Your task to perform on an android device: Open Reddit Image 0: 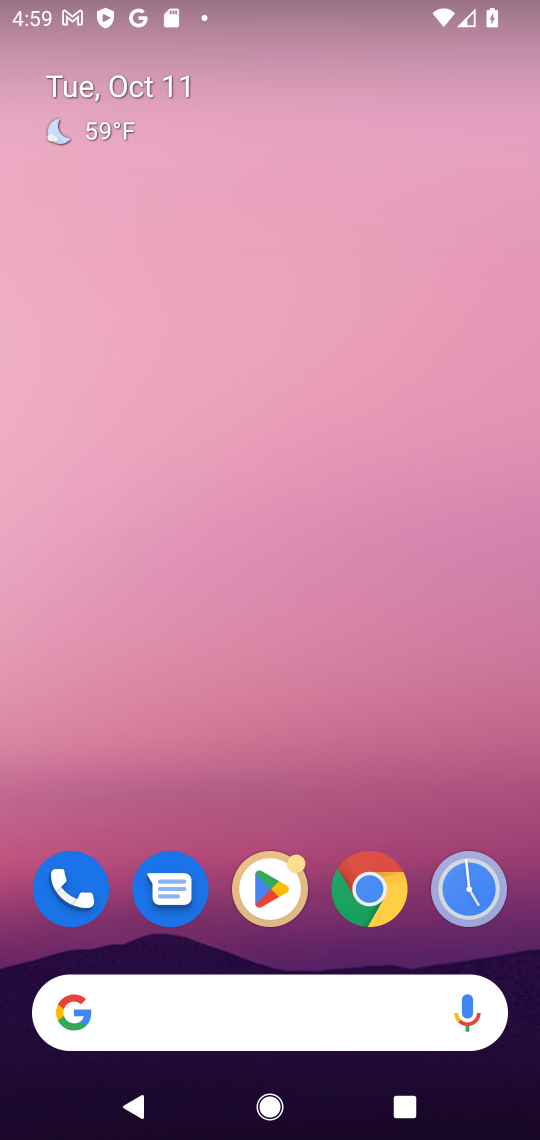
Step 0: drag from (230, 695) to (232, 359)
Your task to perform on an android device: Open Reddit Image 1: 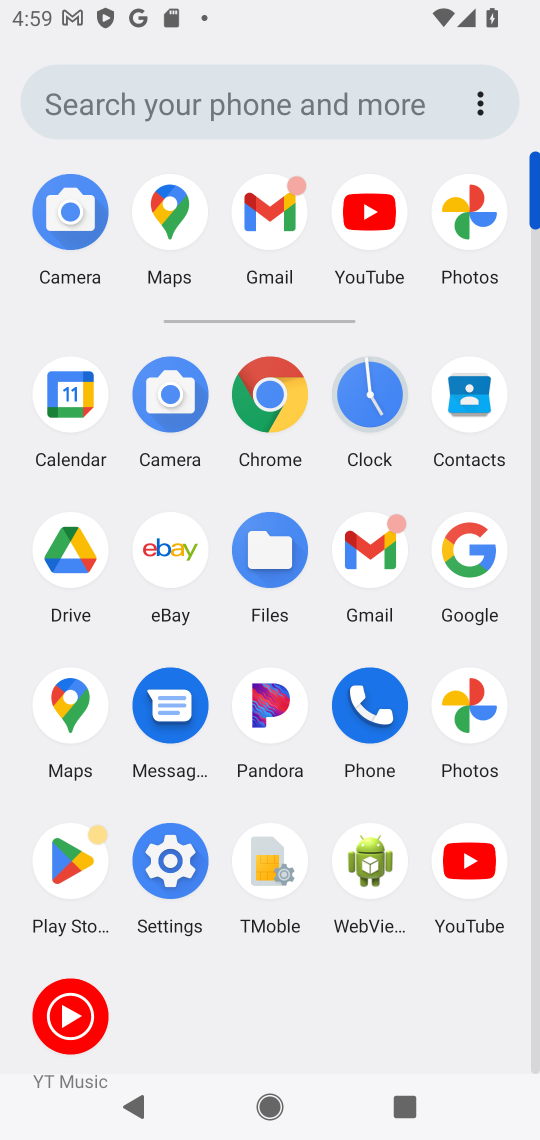
Step 1: click (456, 523)
Your task to perform on an android device: Open Reddit Image 2: 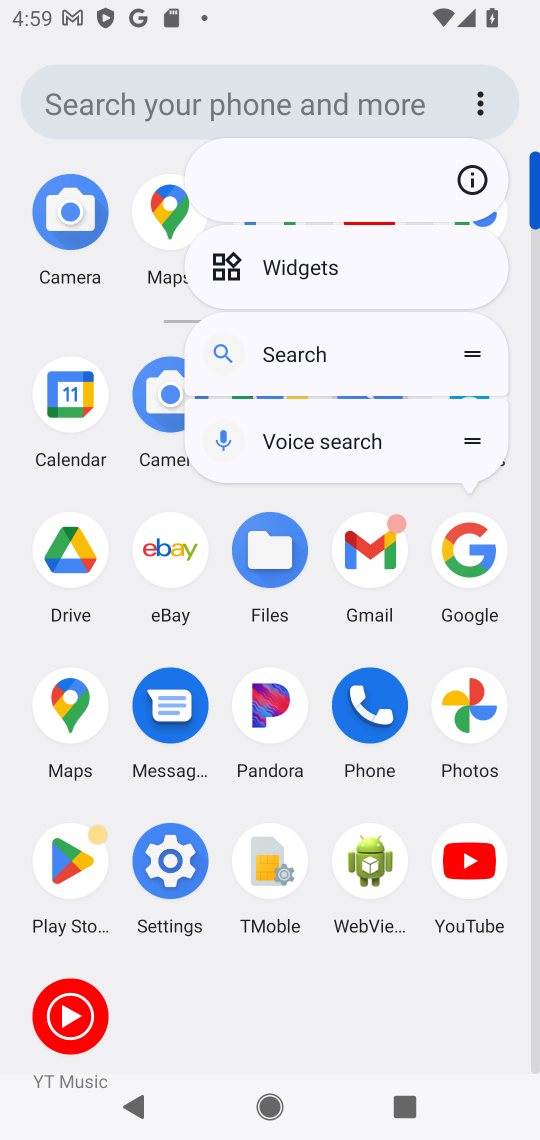
Step 2: click (466, 536)
Your task to perform on an android device: Open Reddit Image 3: 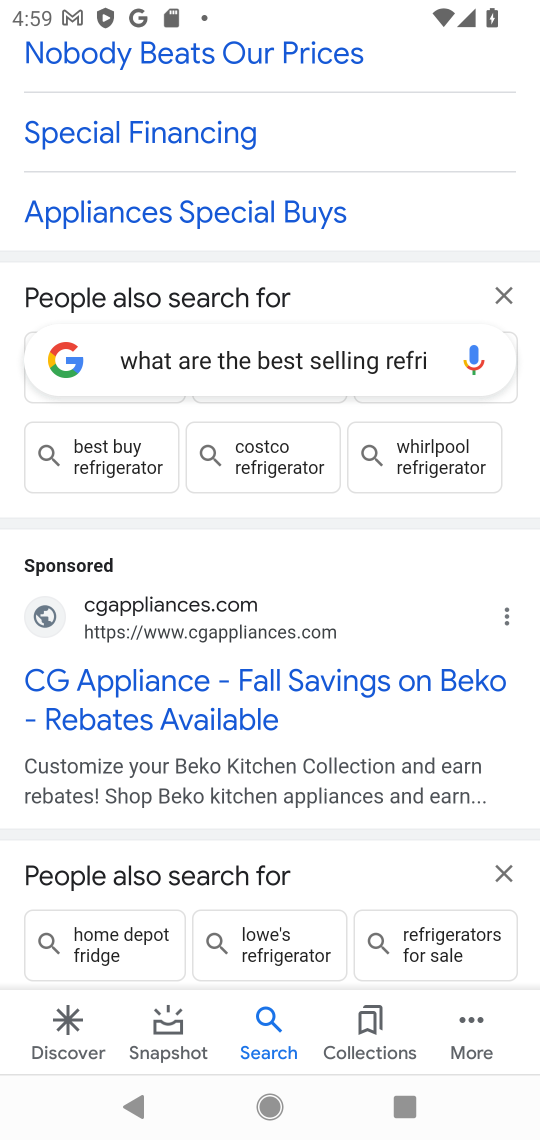
Step 3: drag from (240, 134) to (247, 839)
Your task to perform on an android device: Open Reddit Image 4: 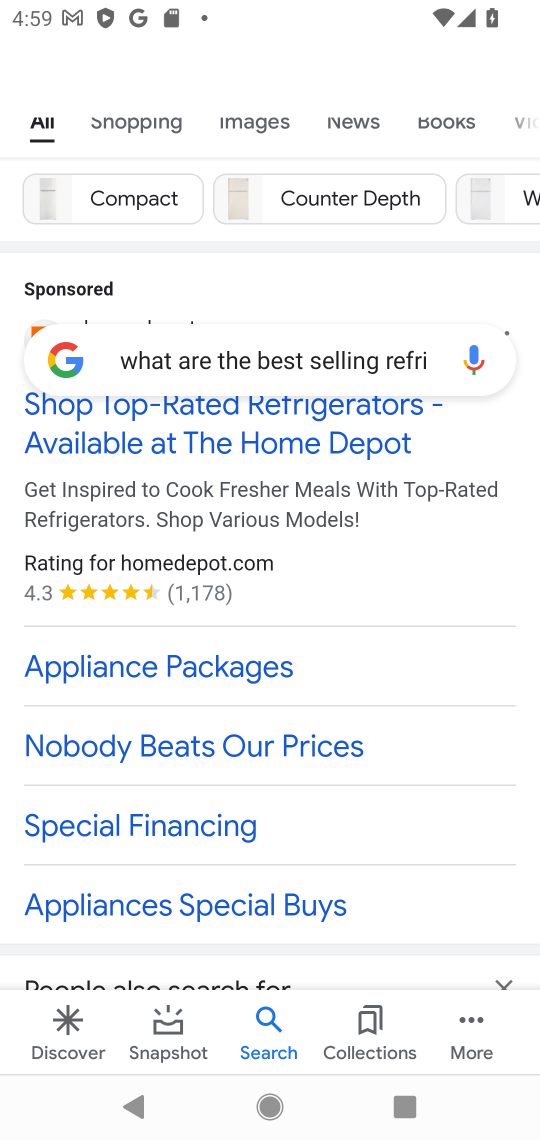
Step 4: drag from (212, 185) to (201, 782)
Your task to perform on an android device: Open Reddit Image 5: 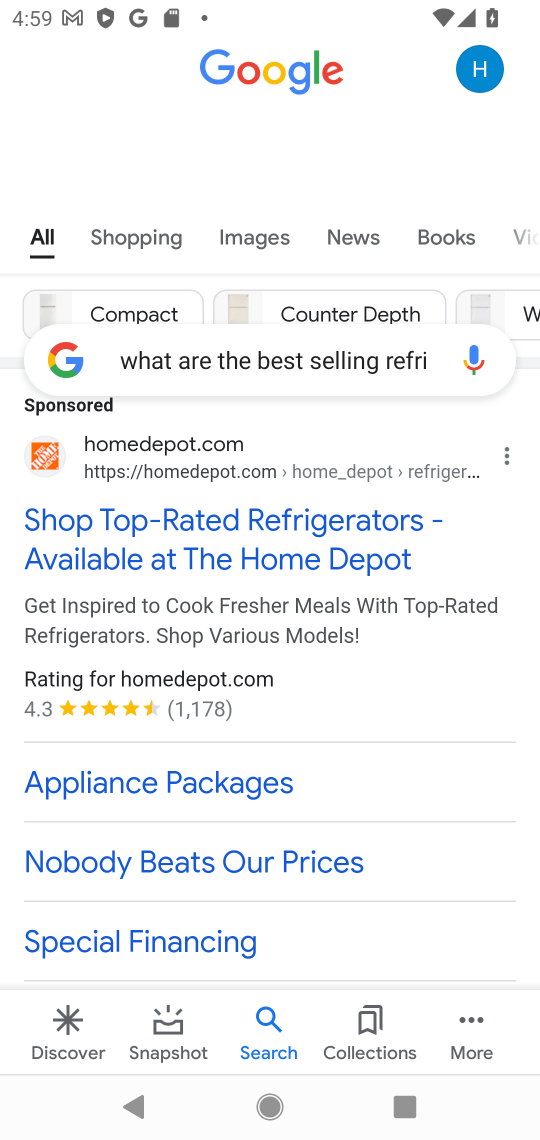
Step 5: click (274, 343)
Your task to perform on an android device: Open Reddit Image 6: 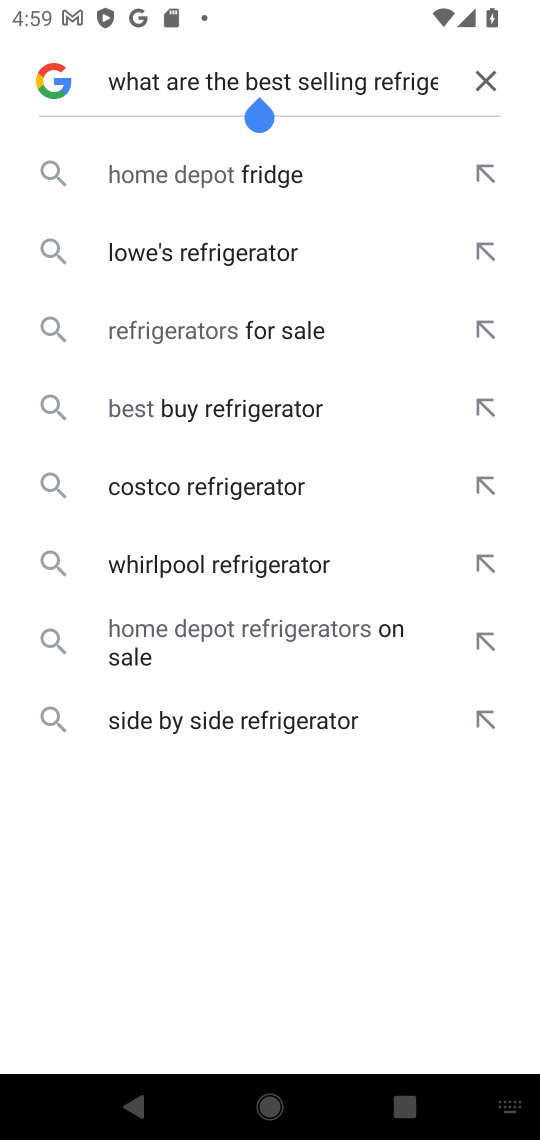
Step 6: click (485, 79)
Your task to perform on an android device: Open Reddit Image 7: 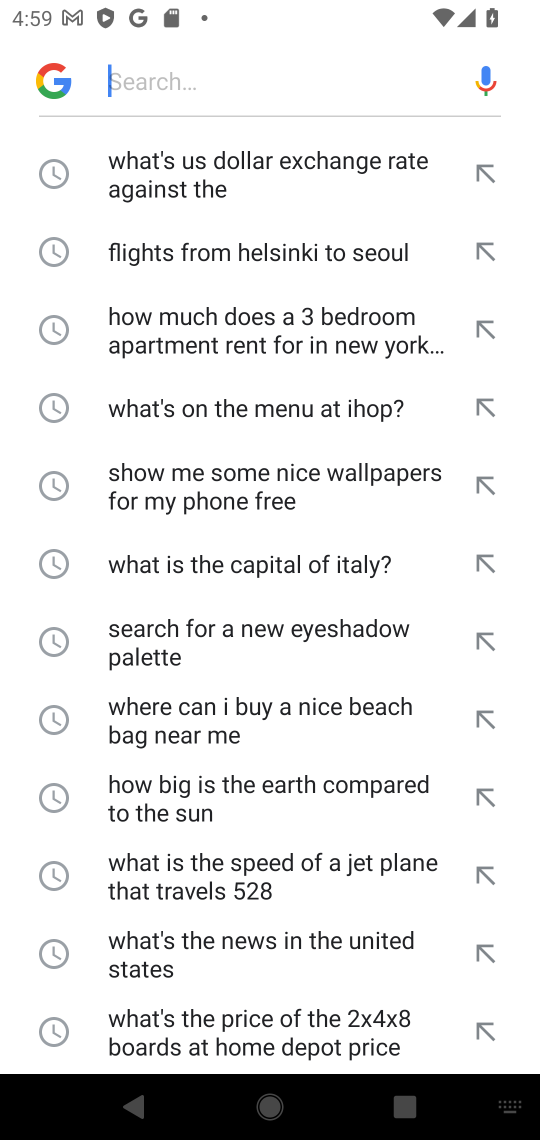
Step 7: click (197, 26)
Your task to perform on an android device: Open Reddit Image 8: 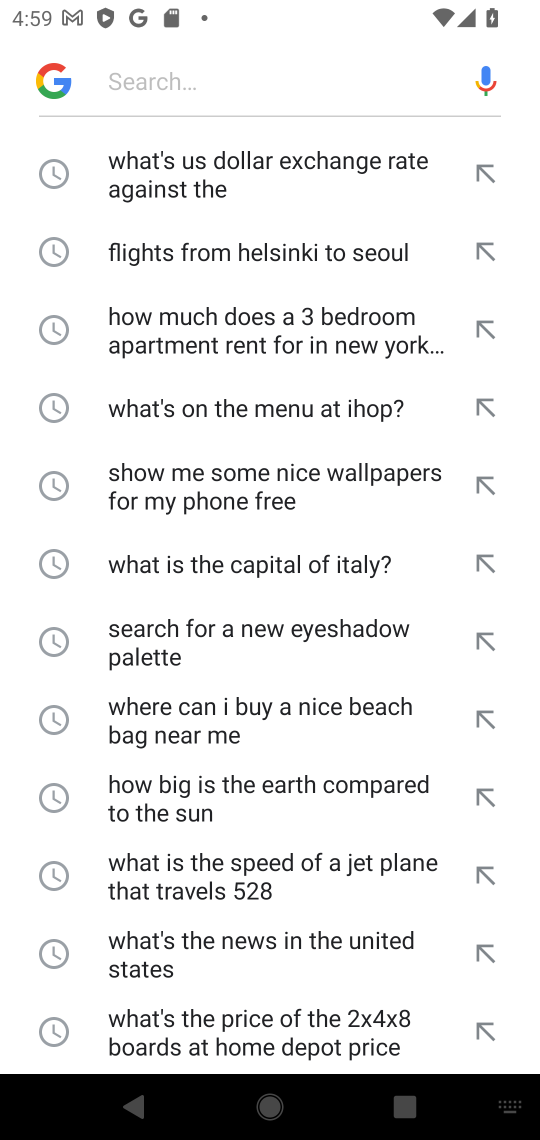
Step 8: click (187, 86)
Your task to perform on an android device: Open Reddit Image 9: 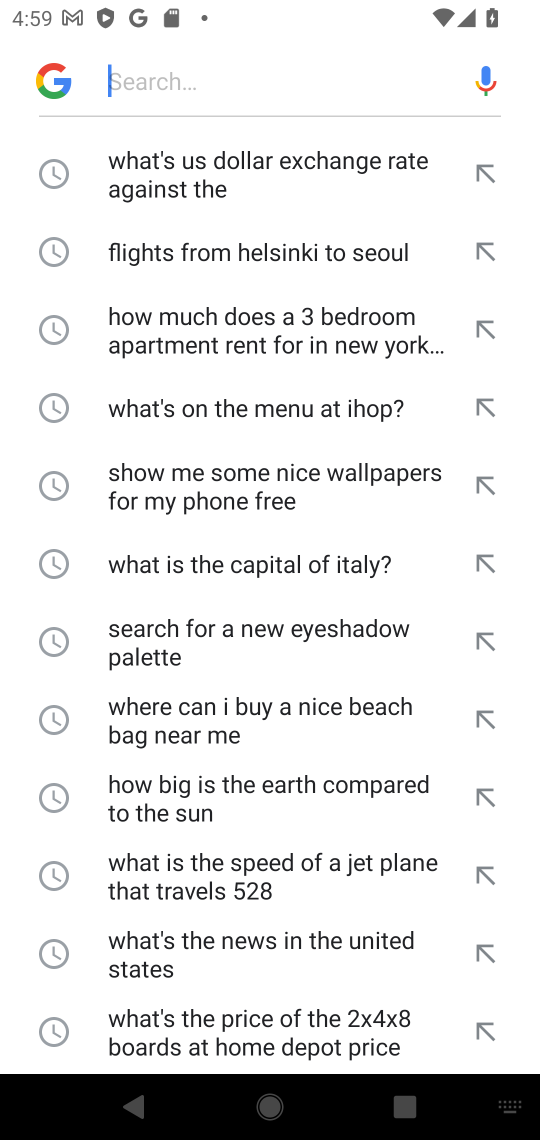
Step 9: type "Open Reddit "
Your task to perform on an android device: Open Reddit Image 10: 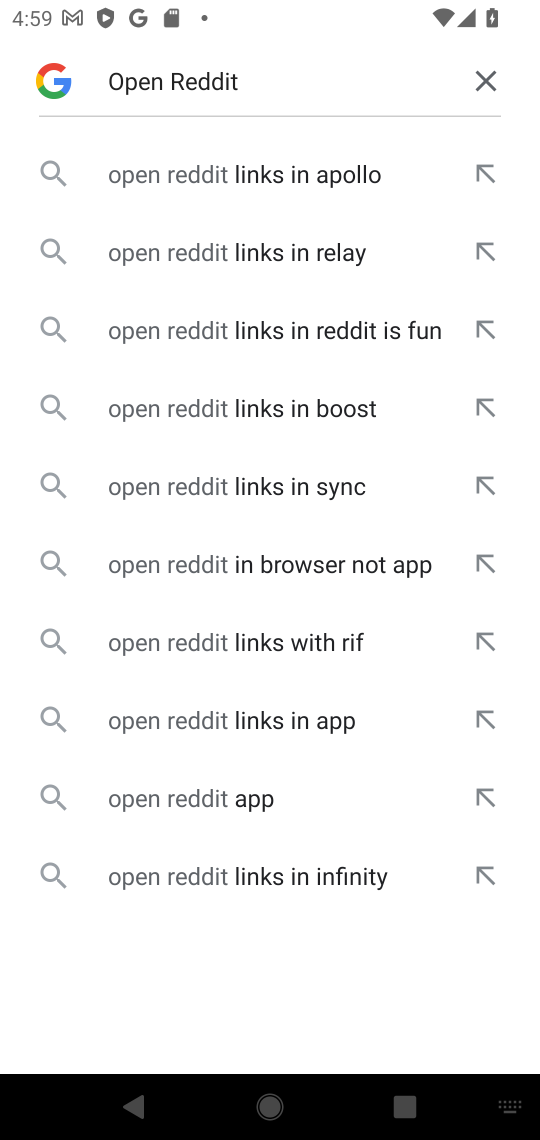
Step 10: click (265, 185)
Your task to perform on an android device: Open Reddit Image 11: 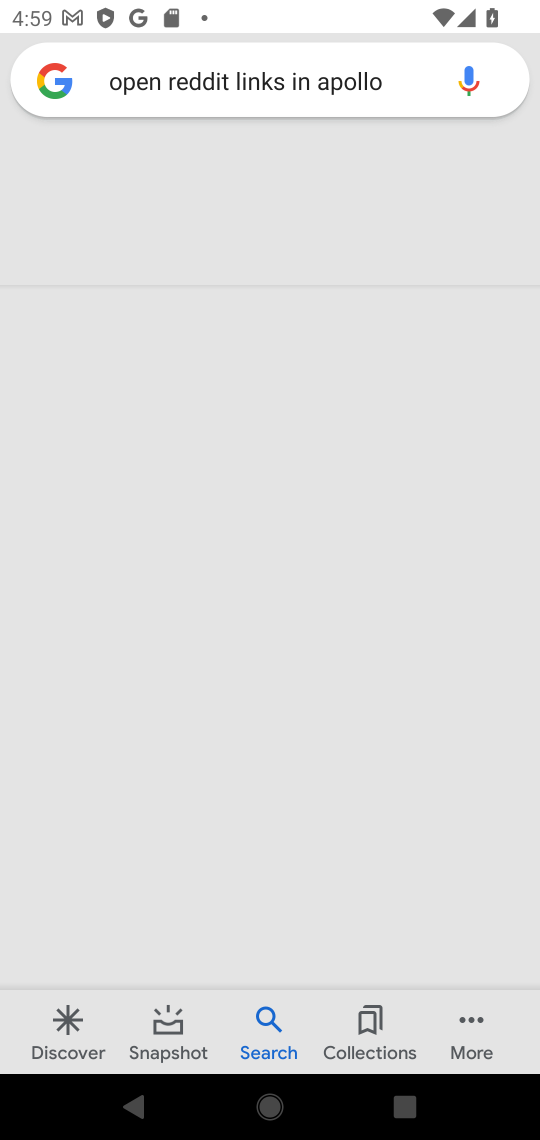
Step 11: click (215, 179)
Your task to perform on an android device: Open Reddit Image 12: 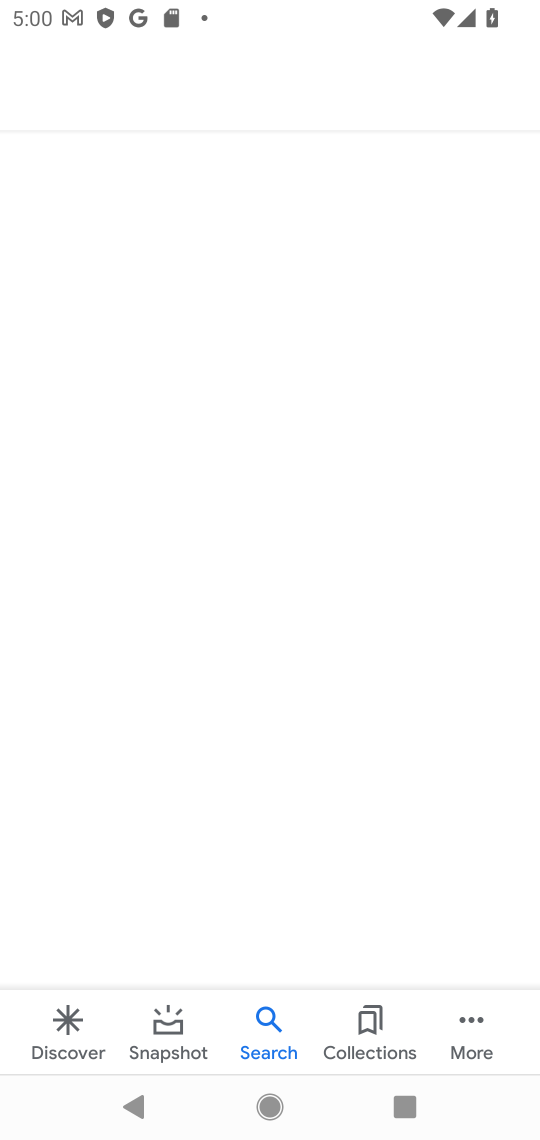
Step 12: click (240, 173)
Your task to perform on an android device: Open Reddit Image 13: 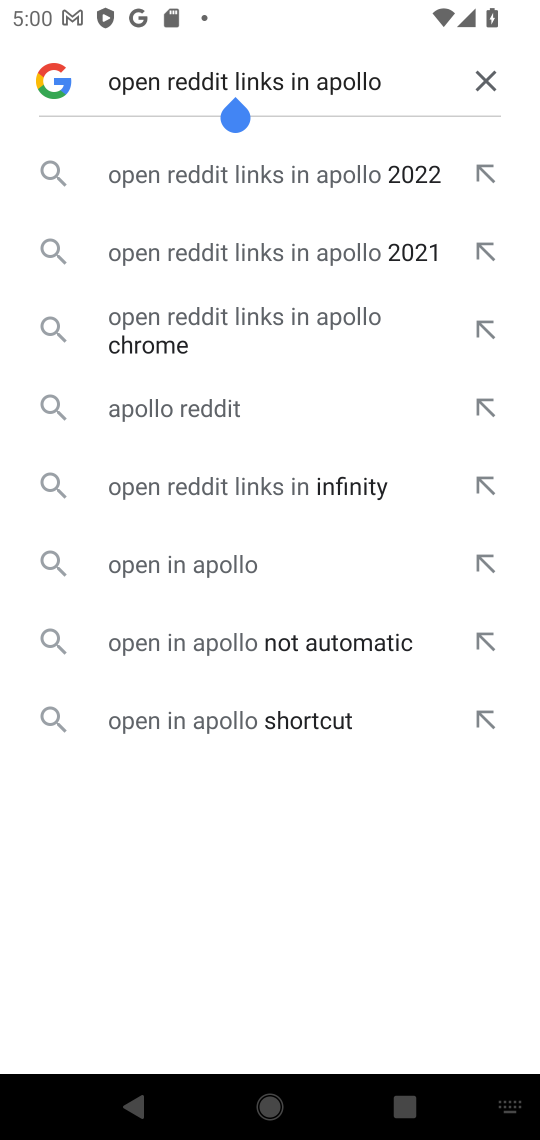
Step 13: click (306, 177)
Your task to perform on an android device: Open Reddit Image 14: 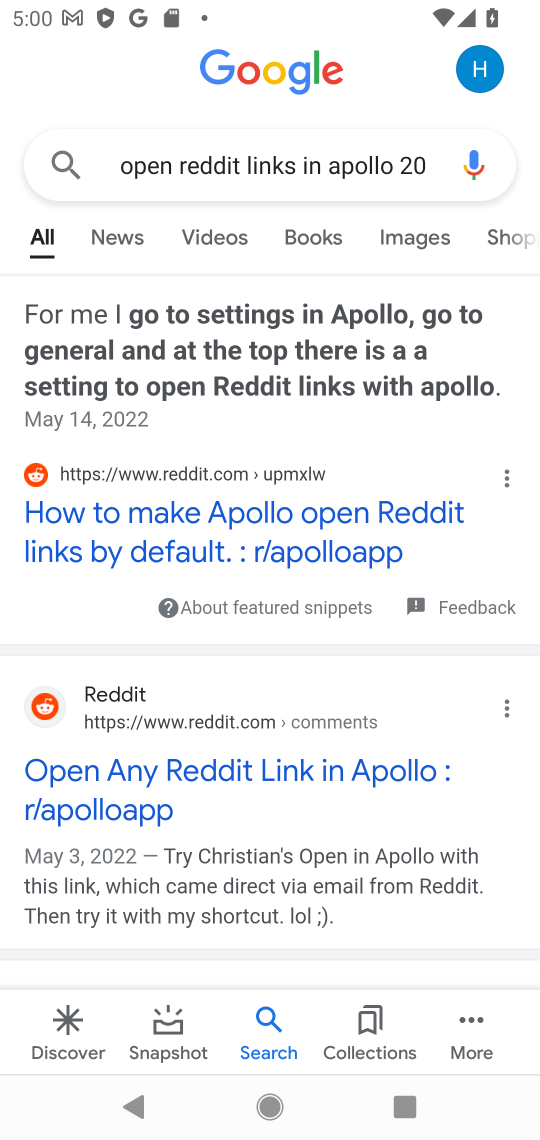
Step 14: click (113, 762)
Your task to perform on an android device: Open Reddit Image 15: 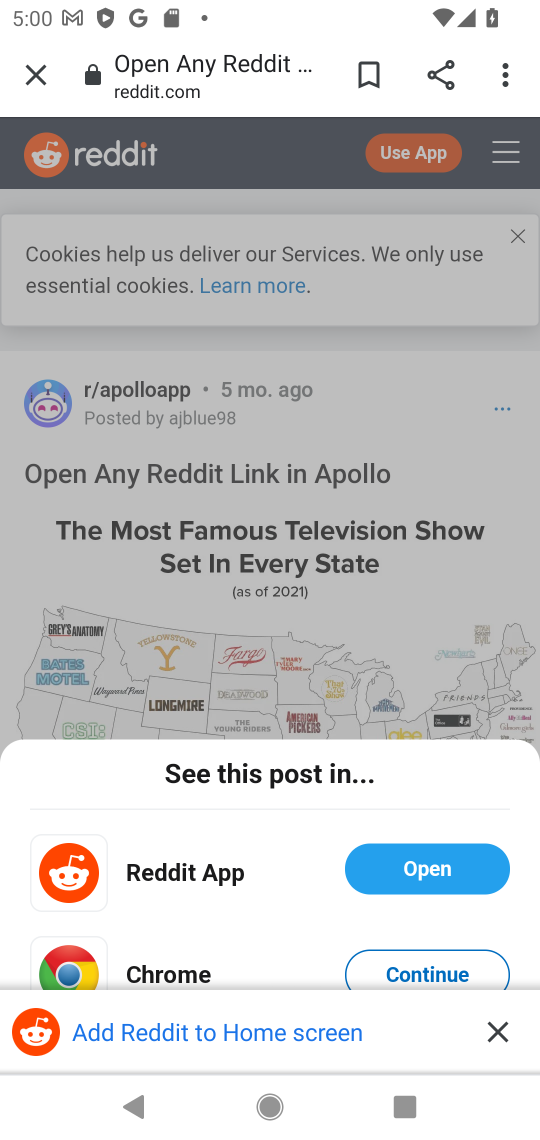
Step 15: click (500, 1026)
Your task to perform on an android device: Open Reddit Image 16: 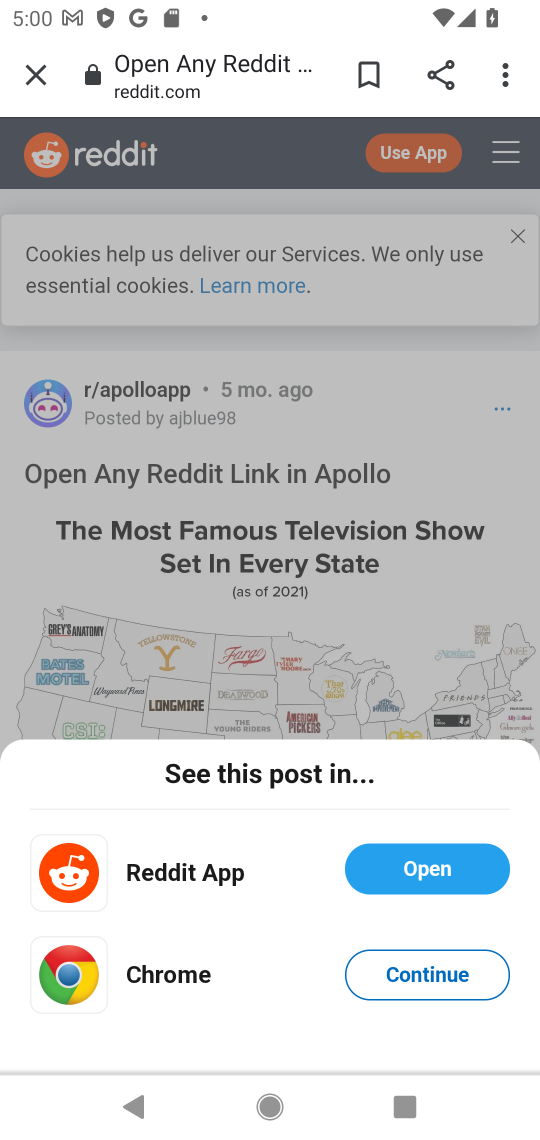
Step 16: click (421, 861)
Your task to perform on an android device: Open Reddit Image 17: 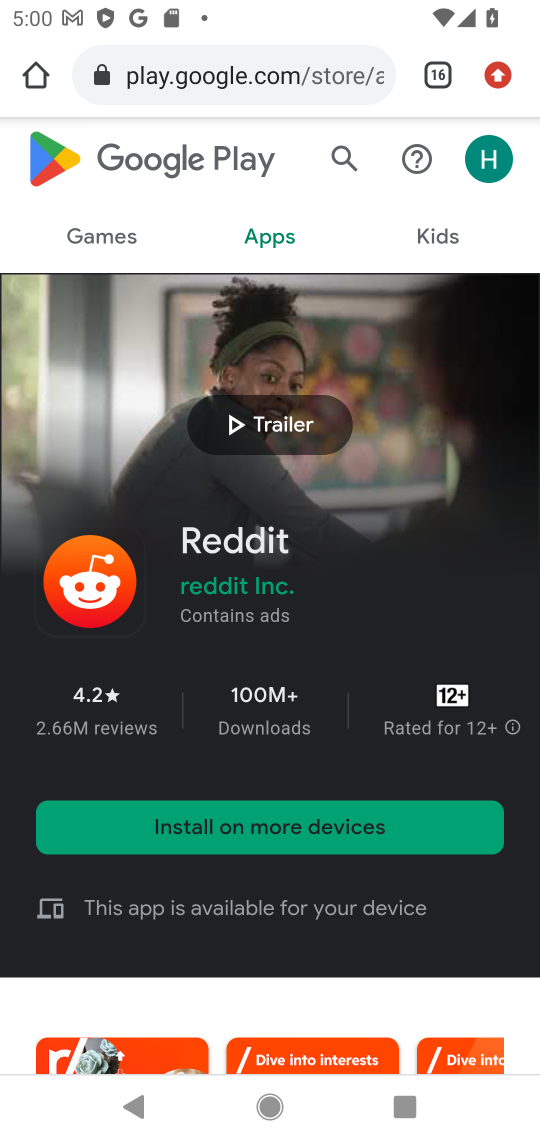
Step 17: task complete